Your task to perform on an android device: turn on sleep mode Image 0: 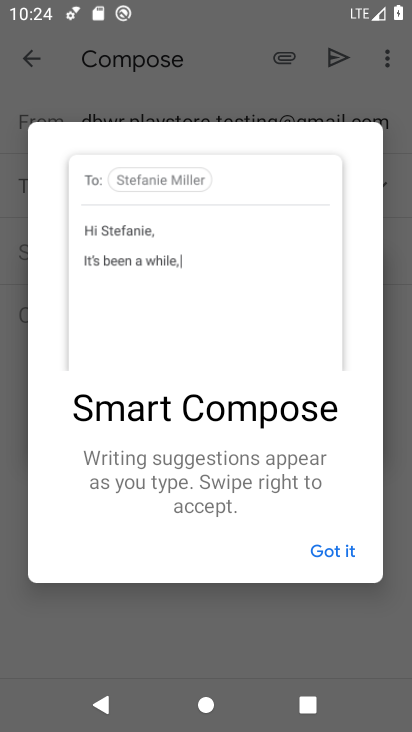
Step 0: press home button
Your task to perform on an android device: turn on sleep mode Image 1: 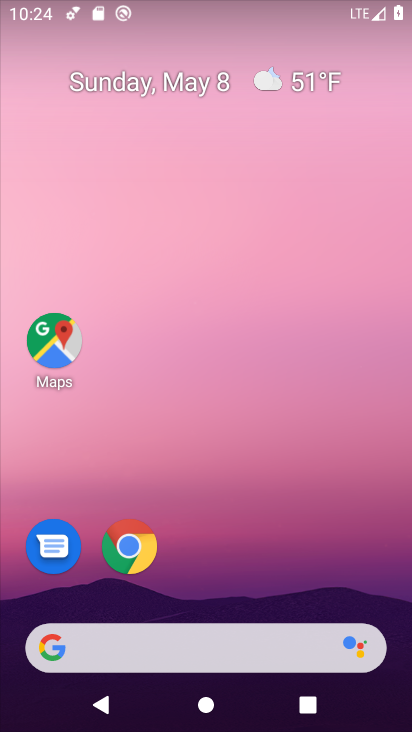
Step 1: drag from (378, 607) to (303, 70)
Your task to perform on an android device: turn on sleep mode Image 2: 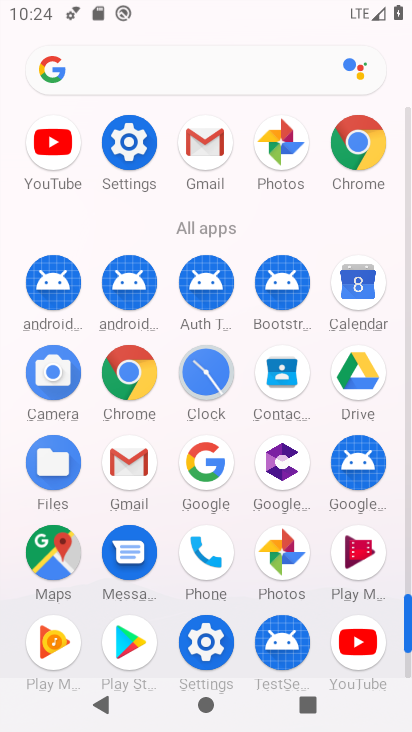
Step 2: click (203, 641)
Your task to perform on an android device: turn on sleep mode Image 3: 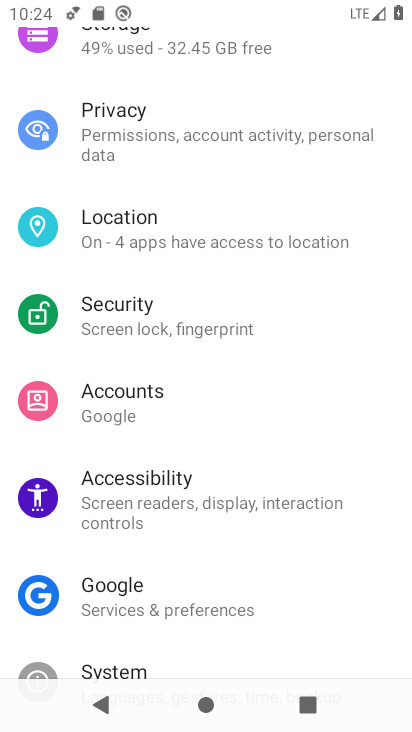
Step 3: drag from (369, 103) to (328, 372)
Your task to perform on an android device: turn on sleep mode Image 4: 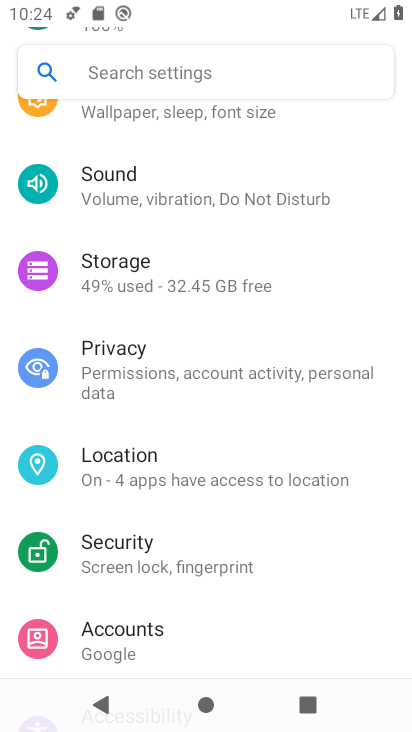
Step 4: drag from (353, 177) to (338, 531)
Your task to perform on an android device: turn on sleep mode Image 5: 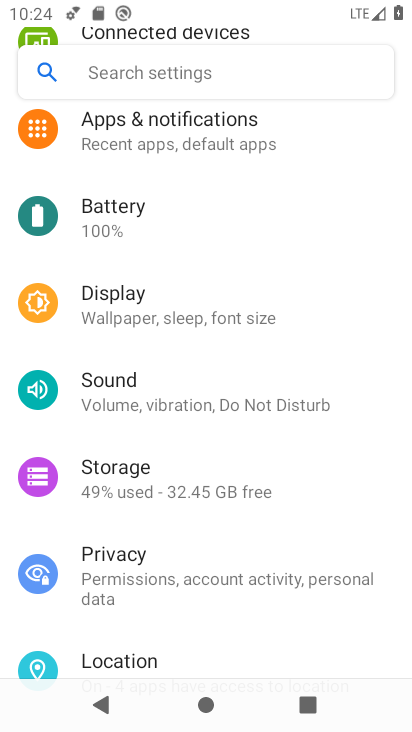
Step 5: click (107, 302)
Your task to perform on an android device: turn on sleep mode Image 6: 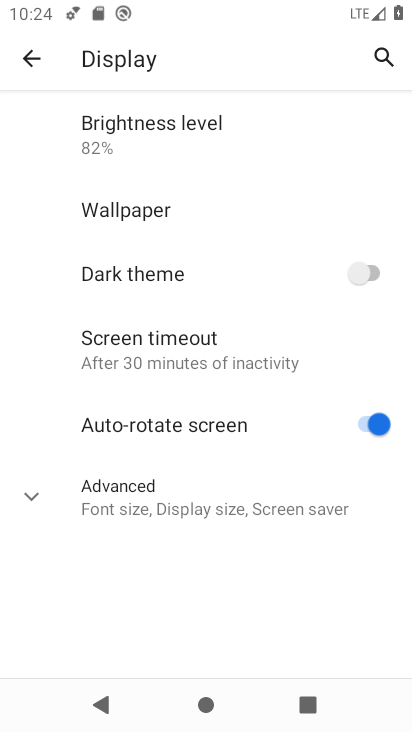
Step 6: click (29, 492)
Your task to perform on an android device: turn on sleep mode Image 7: 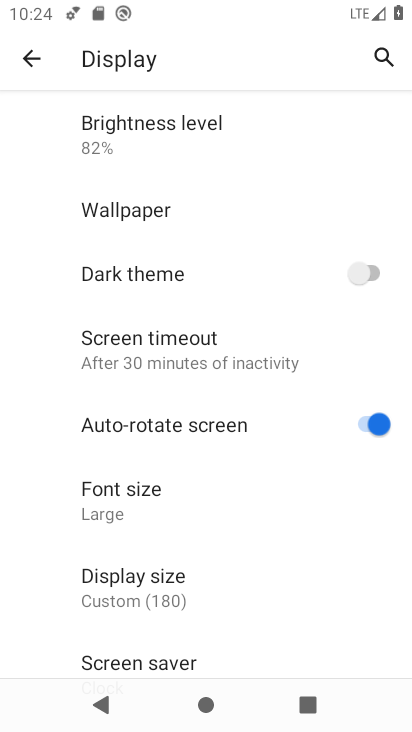
Step 7: task complete